Your task to perform on an android device: search for starred emails in the gmail app Image 0: 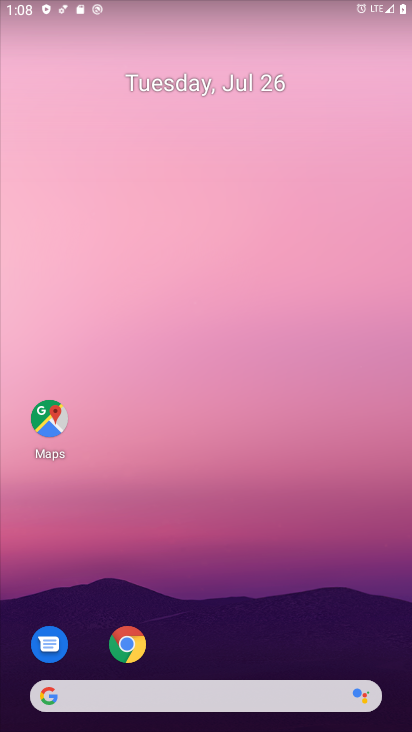
Step 0: drag from (156, 716) to (404, 0)
Your task to perform on an android device: search for starred emails in the gmail app Image 1: 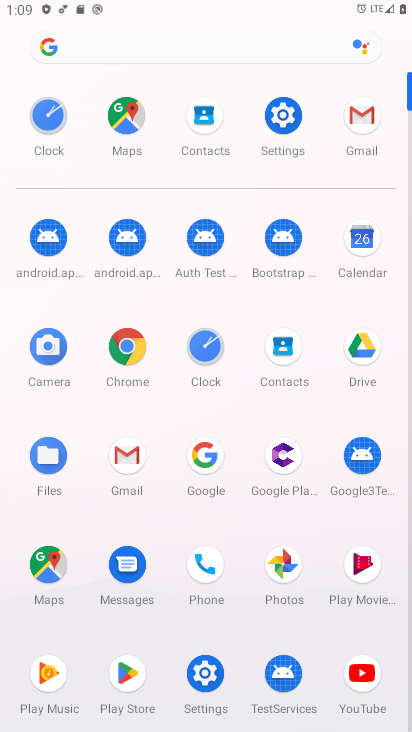
Step 1: click (136, 478)
Your task to perform on an android device: search for starred emails in the gmail app Image 2: 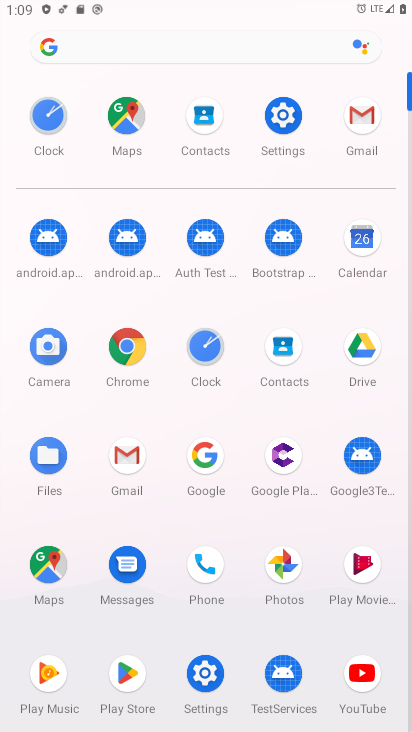
Step 2: click (136, 478)
Your task to perform on an android device: search for starred emails in the gmail app Image 3: 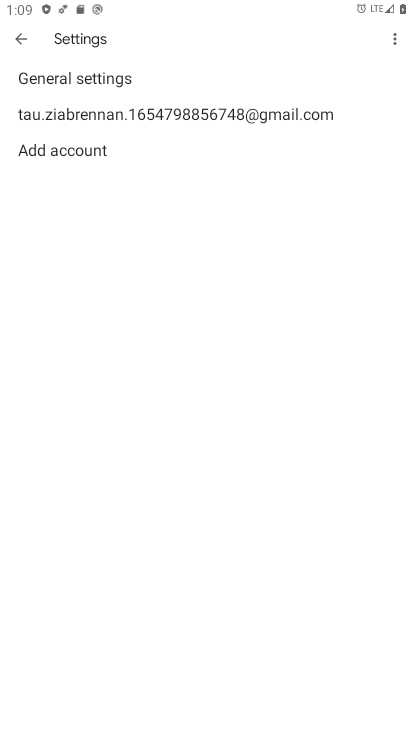
Step 3: click (233, 109)
Your task to perform on an android device: search for starred emails in the gmail app Image 4: 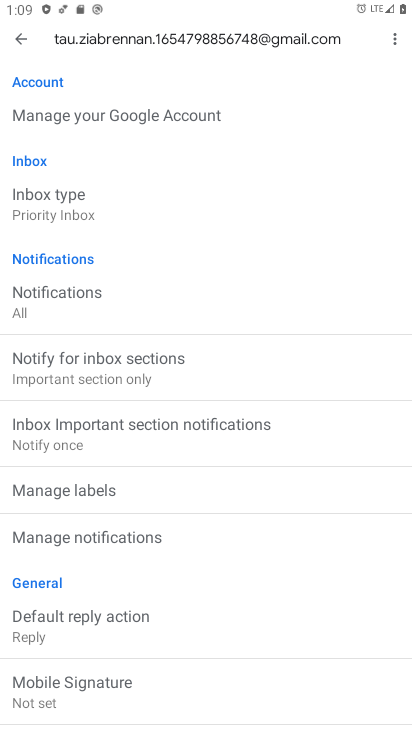
Step 4: press back button
Your task to perform on an android device: search for starred emails in the gmail app Image 5: 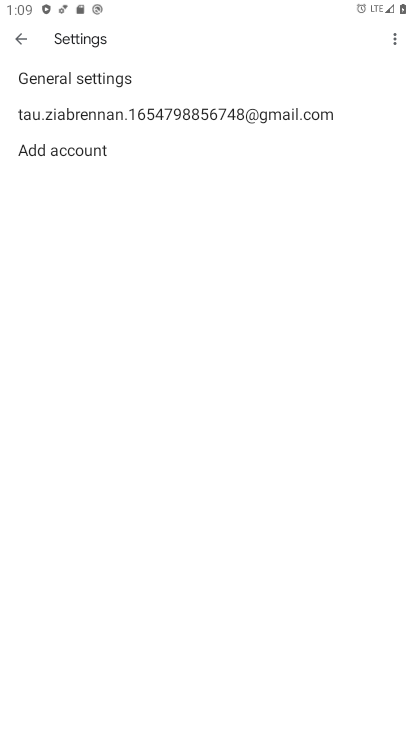
Step 5: press back button
Your task to perform on an android device: search for starred emails in the gmail app Image 6: 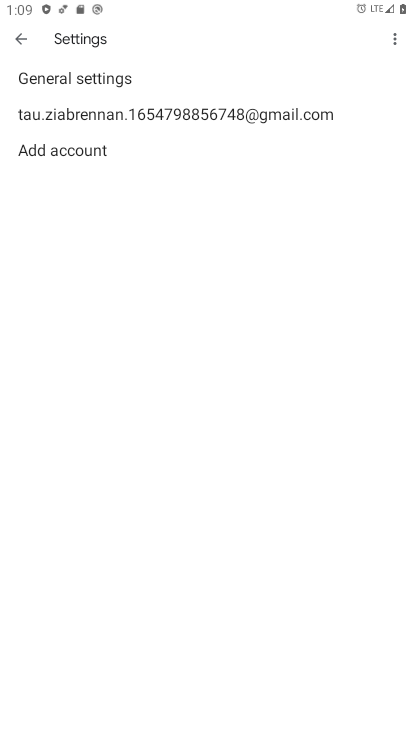
Step 6: press back button
Your task to perform on an android device: search for starred emails in the gmail app Image 7: 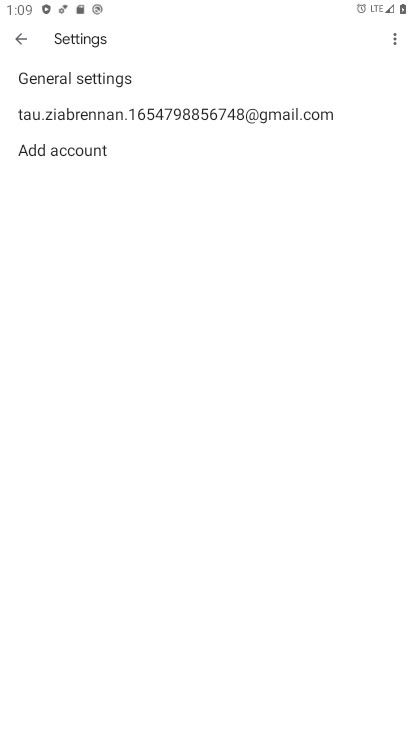
Step 7: press back button
Your task to perform on an android device: search for starred emails in the gmail app Image 8: 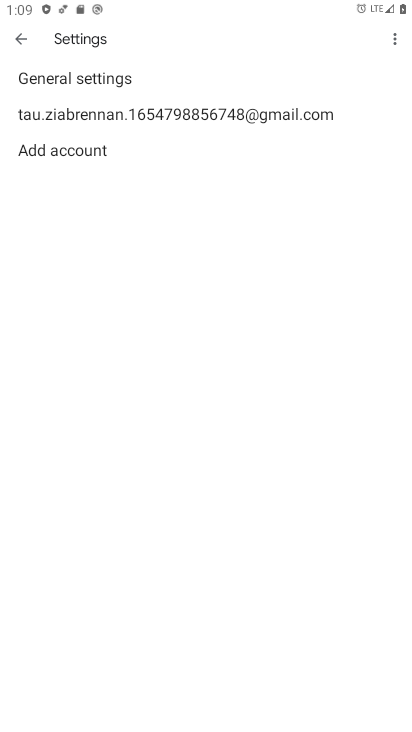
Step 8: press back button
Your task to perform on an android device: search for starred emails in the gmail app Image 9: 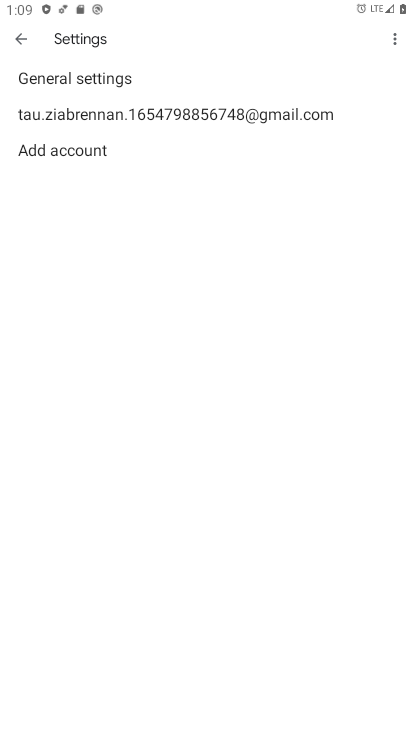
Step 9: press back button
Your task to perform on an android device: search for starred emails in the gmail app Image 10: 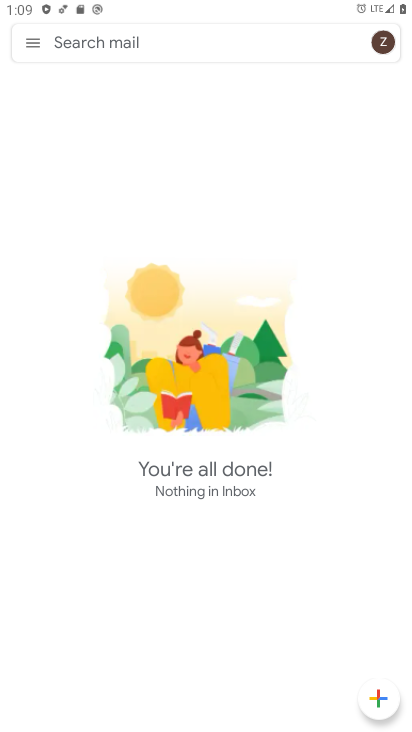
Step 10: click (30, 43)
Your task to perform on an android device: search for starred emails in the gmail app Image 11: 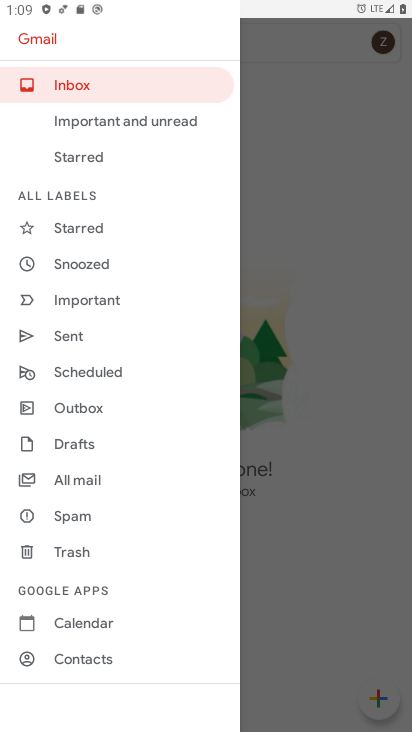
Step 11: click (79, 232)
Your task to perform on an android device: search for starred emails in the gmail app Image 12: 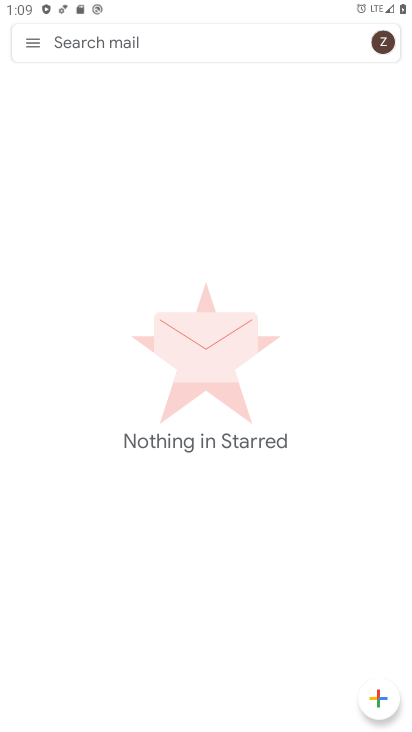
Step 12: task complete